Your task to perform on an android device: Search for vegetarian restaurants on Maps Image 0: 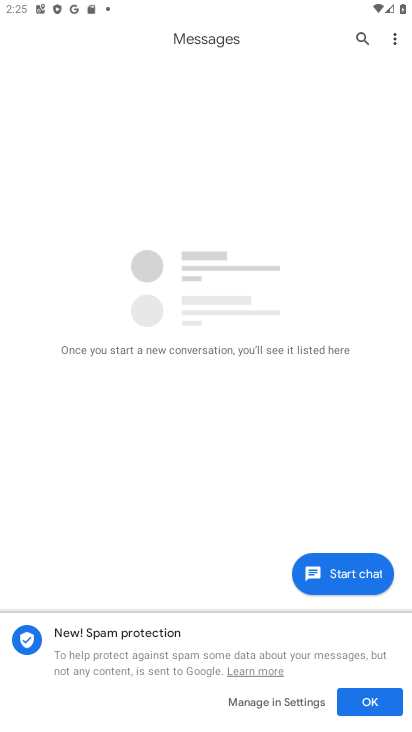
Step 0: press back button
Your task to perform on an android device: Search for vegetarian restaurants on Maps Image 1: 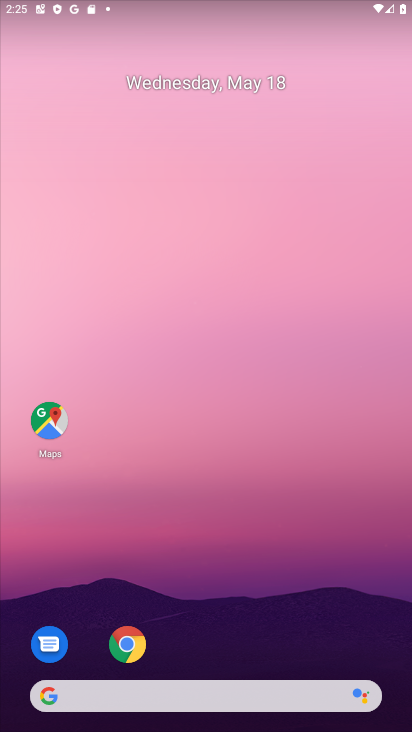
Step 1: click (51, 421)
Your task to perform on an android device: Search for vegetarian restaurants on Maps Image 2: 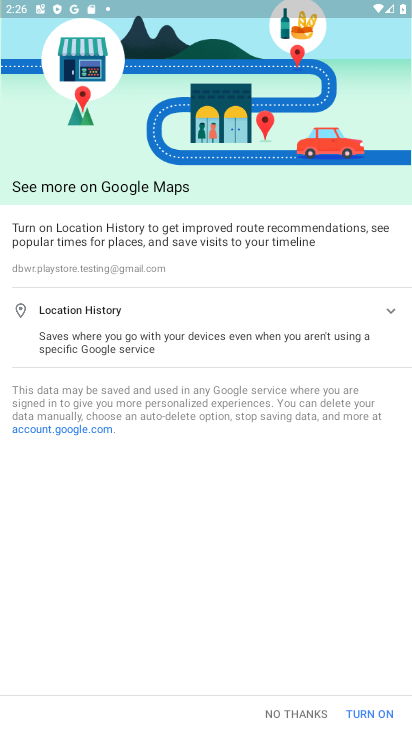
Step 2: click (292, 714)
Your task to perform on an android device: Search for vegetarian restaurants on Maps Image 3: 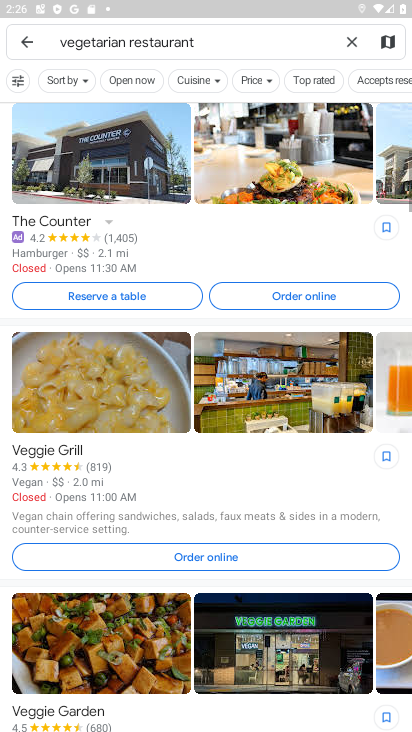
Step 3: click (357, 42)
Your task to perform on an android device: Search for vegetarian restaurants on Maps Image 4: 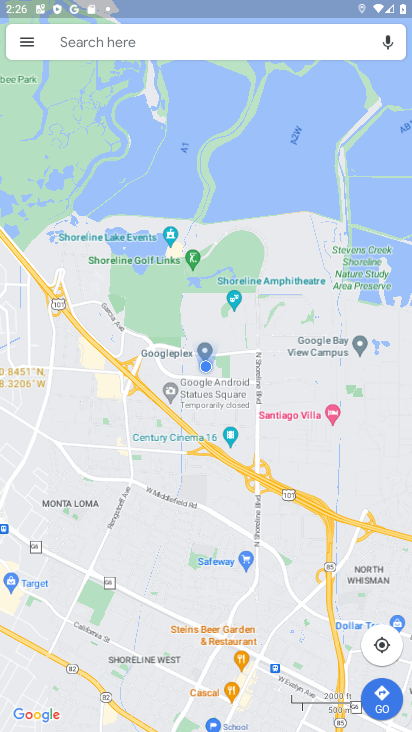
Step 4: click (190, 46)
Your task to perform on an android device: Search for vegetarian restaurants on Maps Image 5: 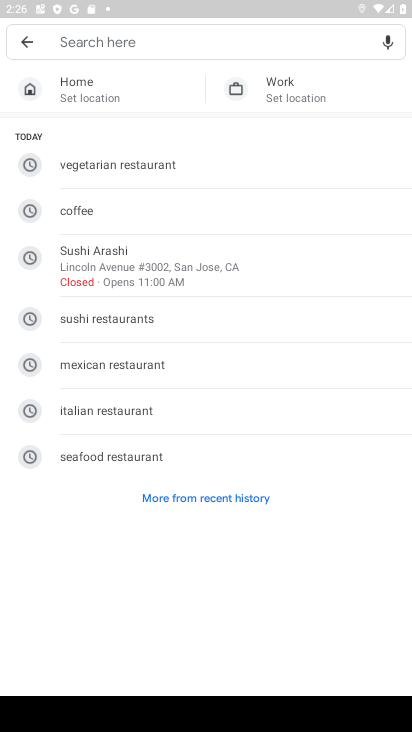
Step 5: type "vegetarian restaurants"
Your task to perform on an android device: Search for vegetarian restaurants on Maps Image 6: 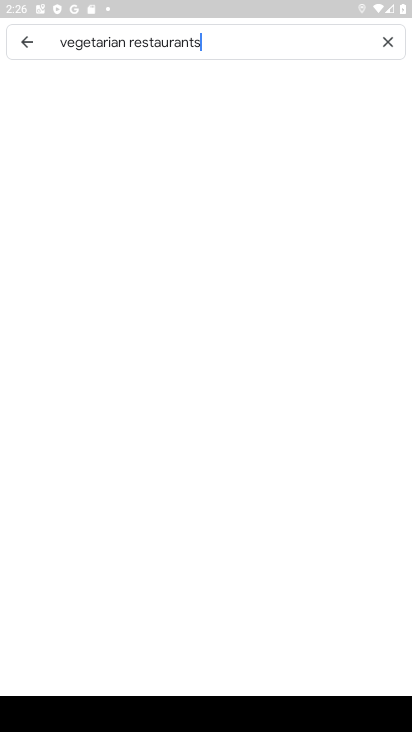
Step 6: type ""
Your task to perform on an android device: Search for vegetarian restaurants on Maps Image 7: 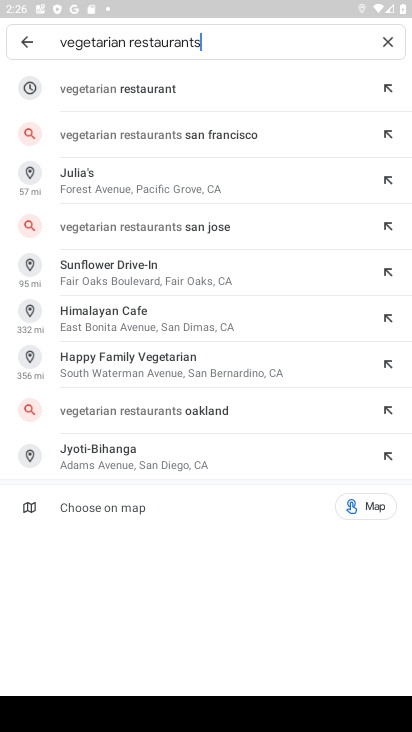
Step 7: click (142, 85)
Your task to perform on an android device: Search for vegetarian restaurants on Maps Image 8: 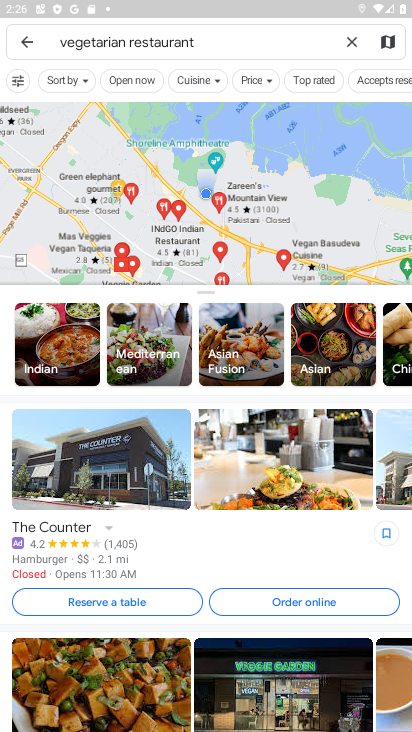
Step 8: task complete